Your task to perform on an android device: Open ESPN.com Image 0: 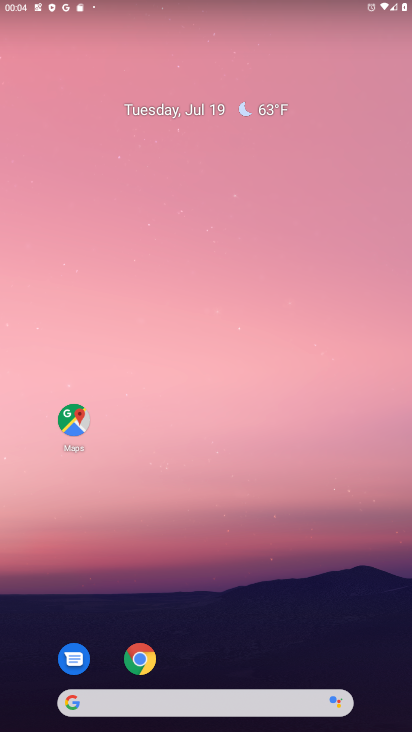
Step 0: press home button
Your task to perform on an android device: Open ESPN.com Image 1: 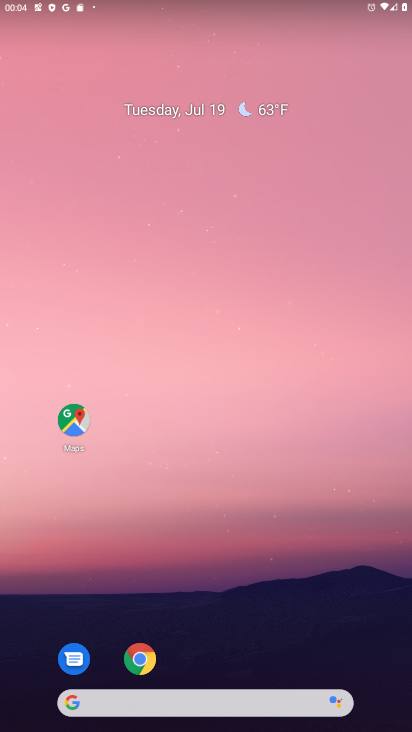
Step 1: drag from (222, 661) to (222, 220)
Your task to perform on an android device: Open ESPN.com Image 2: 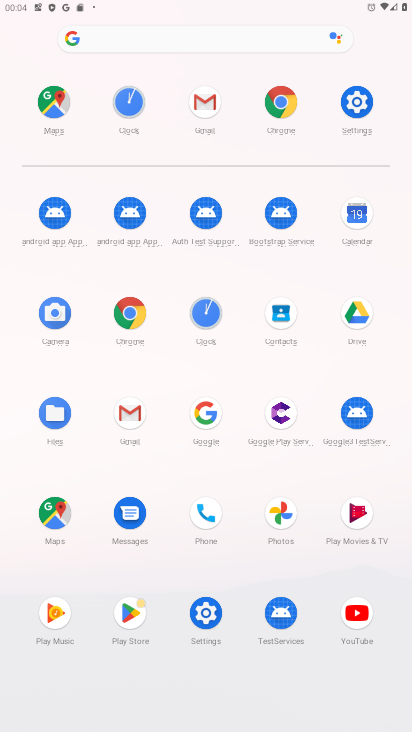
Step 2: click (278, 88)
Your task to perform on an android device: Open ESPN.com Image 3: 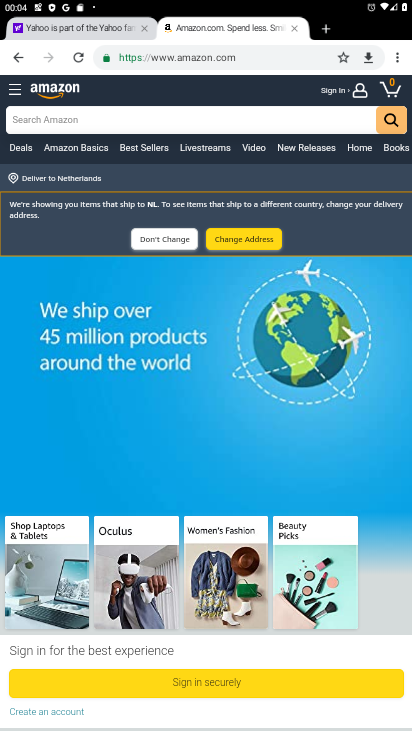
Step 3: click (204, 64)
Your task to perform on an android device: Open ESPN.com Image 4: 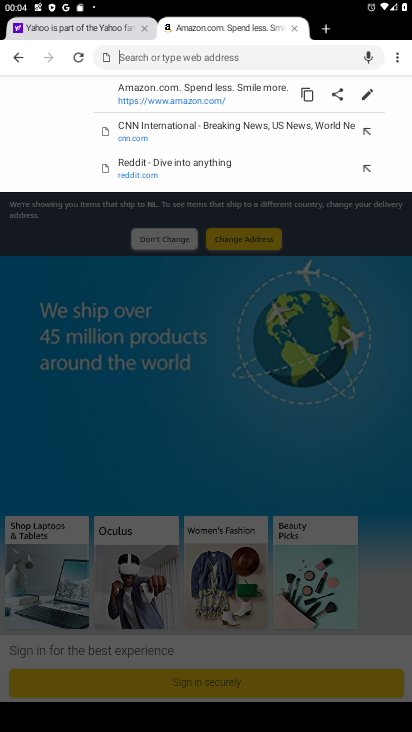
Step 4: type " ESPN.com"
Your task to perform on an android device: Open ESPN.com Image 5: 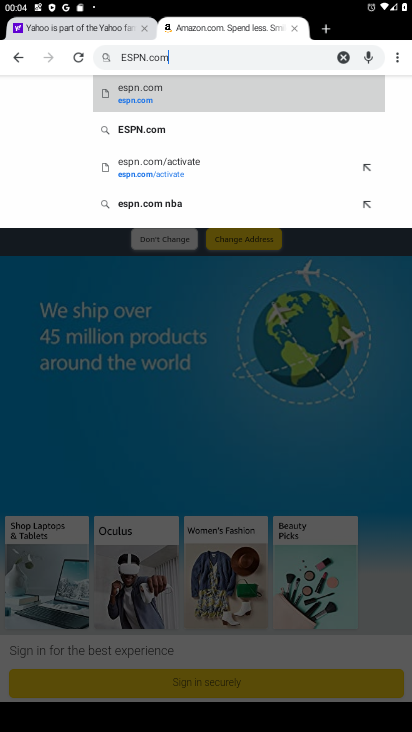
Step 5: type ""
Your task to perform on an android device: Open ESPN.com Image 6: 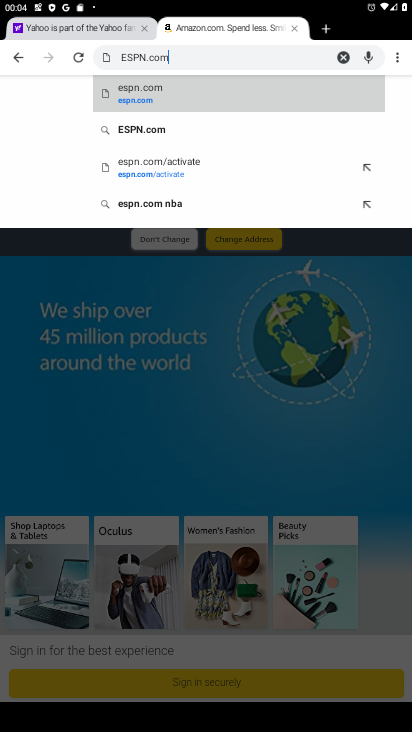
Step 6: click (170, 99)
Your task to perform on an android device: Open ESPN.com Image 7: 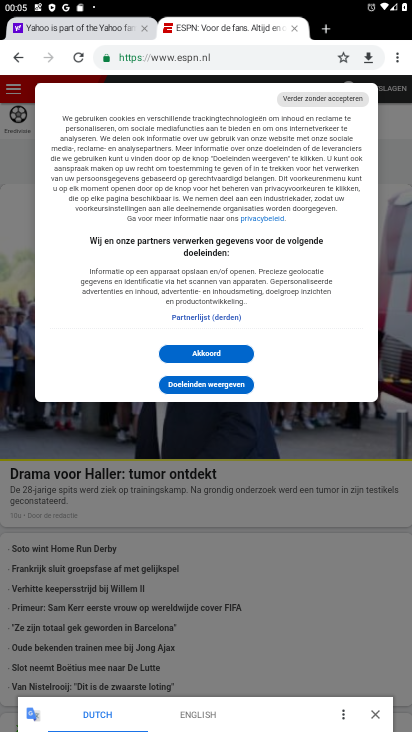
Step 7: task complete